Your task to perform on an android device: Open ESPN.com Image 0: 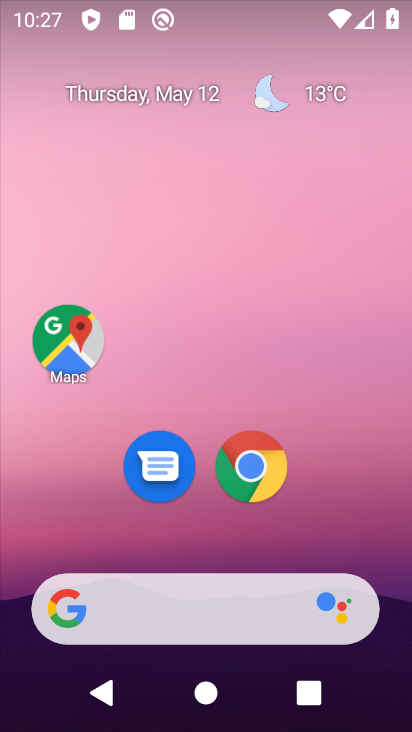
Step 0: click (252, 618)
Your task to perform on an android device: Open ESPN.com Image 1: 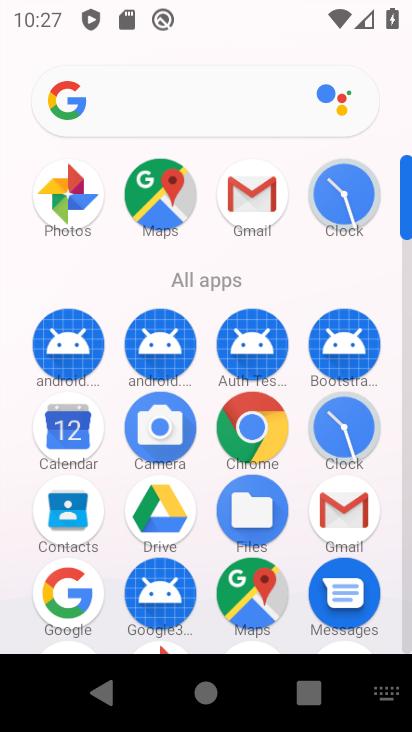
Step 1: type "espn.com"
Your task to perform on an android device: Open ESPN.com Image 2: 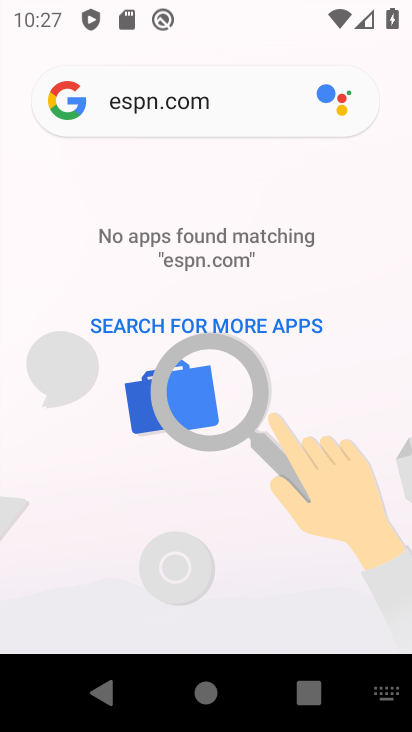
Step 2: click (68, 107)
Your task to perform on an android device: Open ESPN.com Image 3: 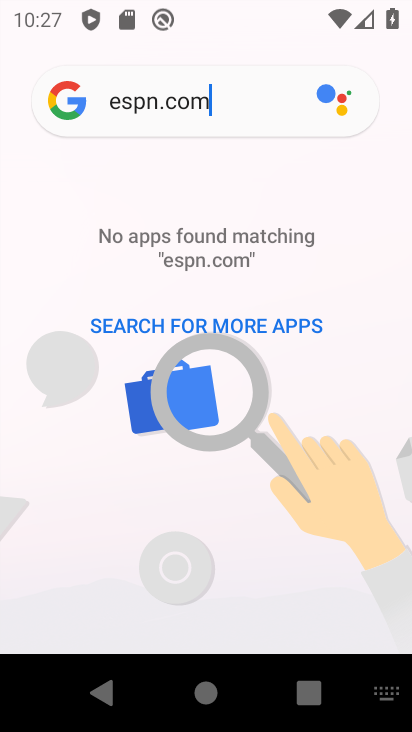
Step 3: click (70, 99)
Your task to perform on an android device: Open ESPN.com Image 4: 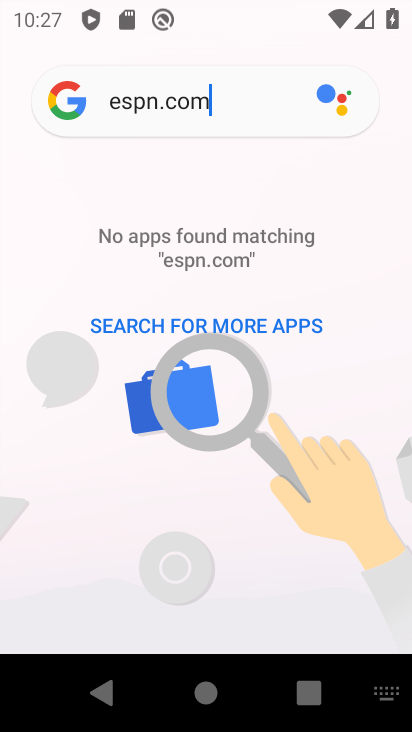
Step 4: press back button
Your task to perform on an android device: Open ESPN.com Image 5: 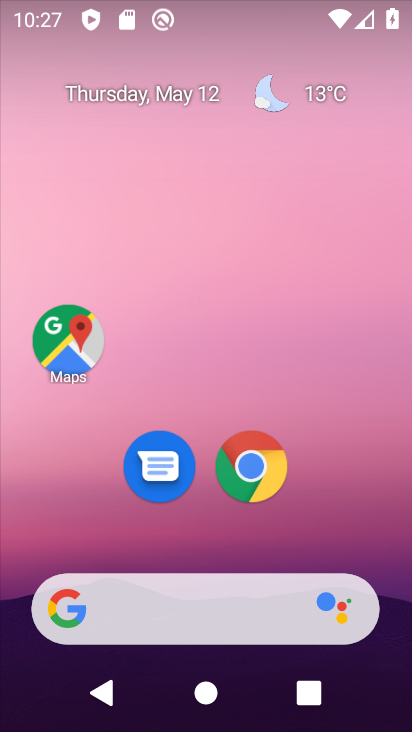
Step 5: click (171, 607)
Your task to perform on an android device: Open ESPN.com Image 6: 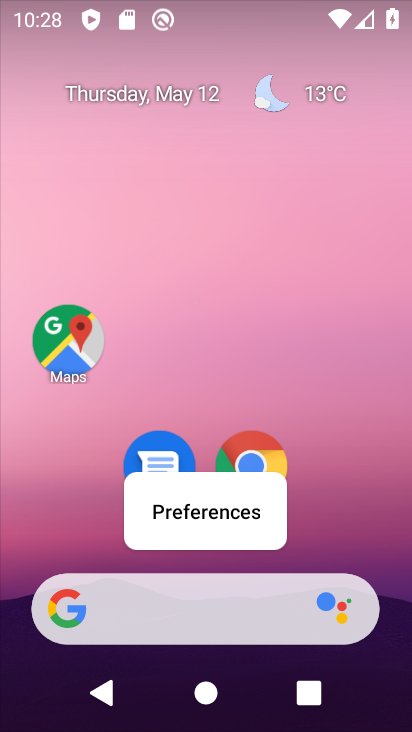
Step 6: click (80, 605)
Your task to perform on an android device: Open ESPN.com Image 7: 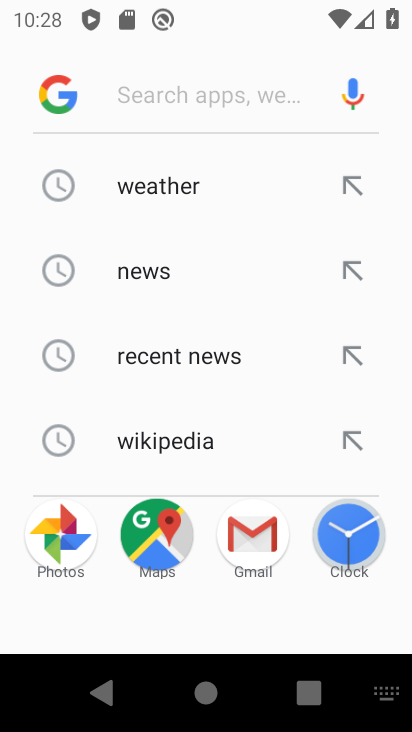
Step 7: type "espn.com"
Your task to perform on an android device: Open ESPN.com Image 8: 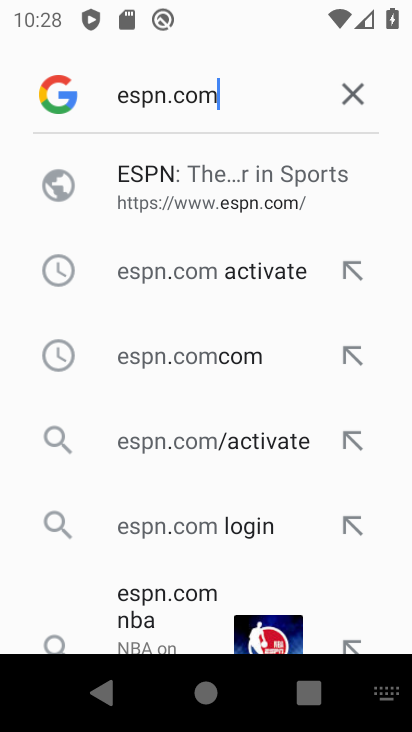
Step 8: click (149, 191)
Your task to perform on an android device: Open ESPN.com Image 9: 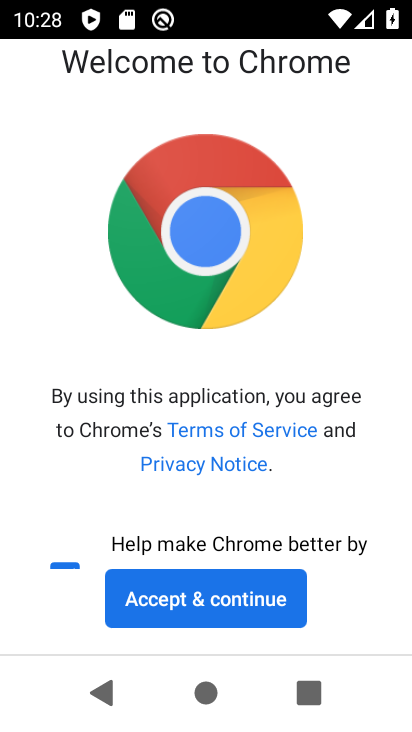
Step 9: click (246, 593)
Your task to perform on an android device: Open ESPN.com Image 10: 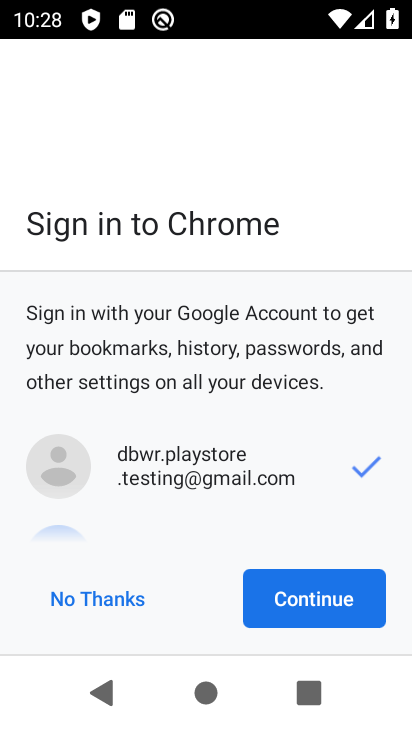
Step 10: click (283, 592)
Your task to perform on an android device: Open ESPN.com Image 11: 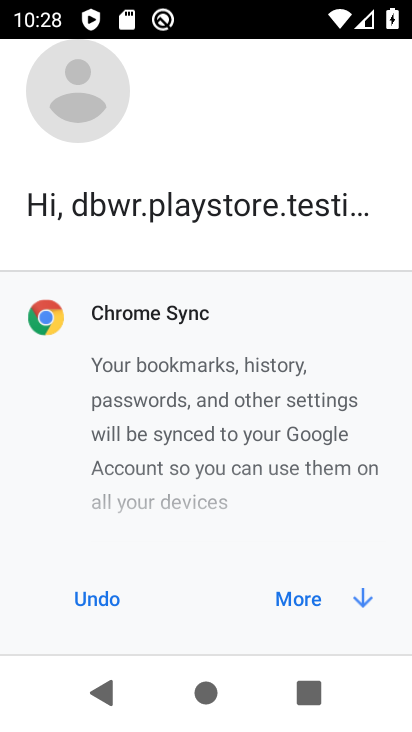
Step 11: click (307, 600)
Your task to perform on an android device: Open ESPN.com Image 12: 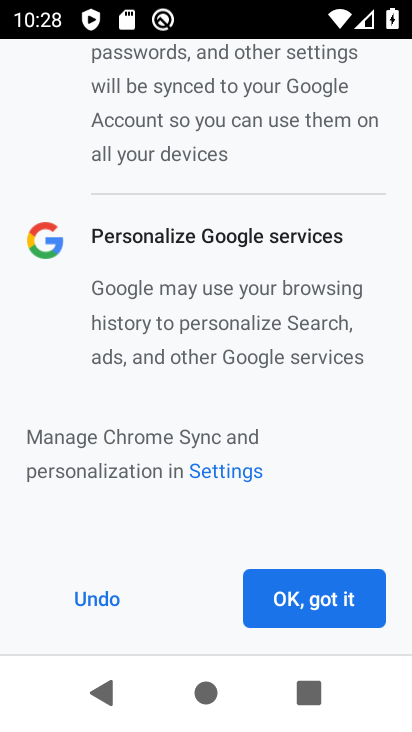
Step 12: click (357, 602)
Your task to perform on an android device: Open ESPN.com Image 13: 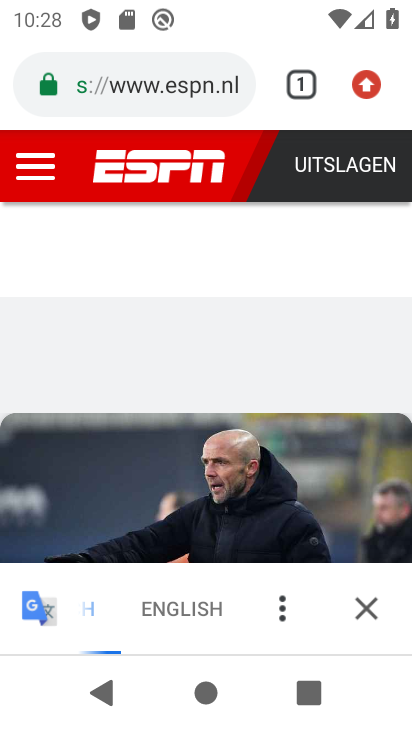
Step 13: task complete